Your task to perform on an android device: check battery use Image 0: 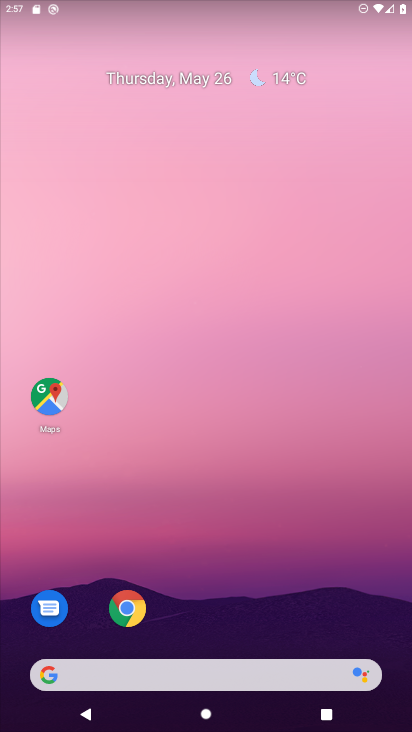
Step 0: drag from (281, 641) to (301, 55)
Your task to perform on an android device: check battery use Image 1: 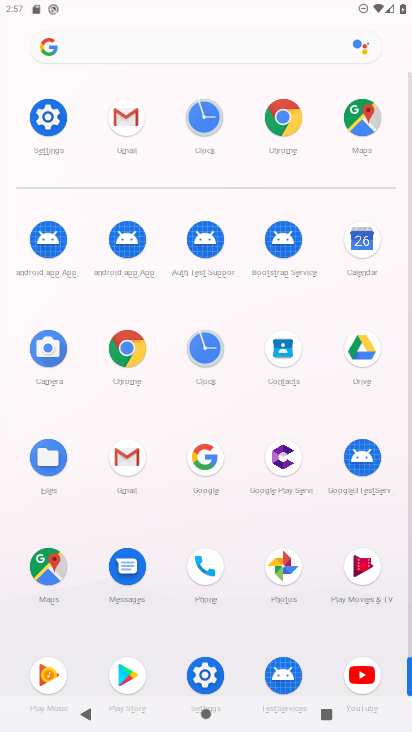
Step 1: click (42, 119)
Your task to perform on an android device: check battery use Image 2: 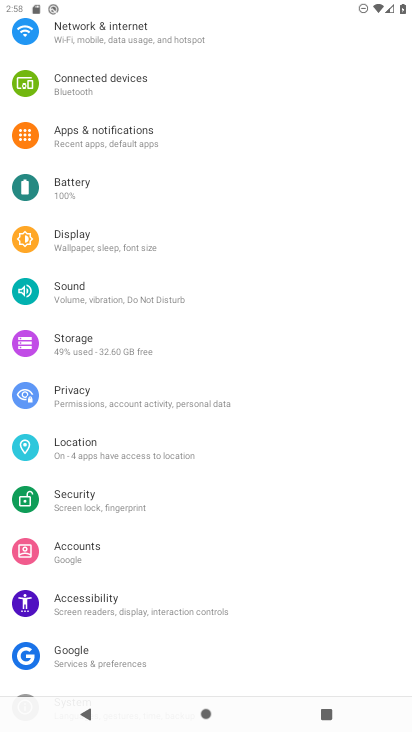
Step 2: click (113, 190)
Your task to perform on an android device: check battery use Image 3: 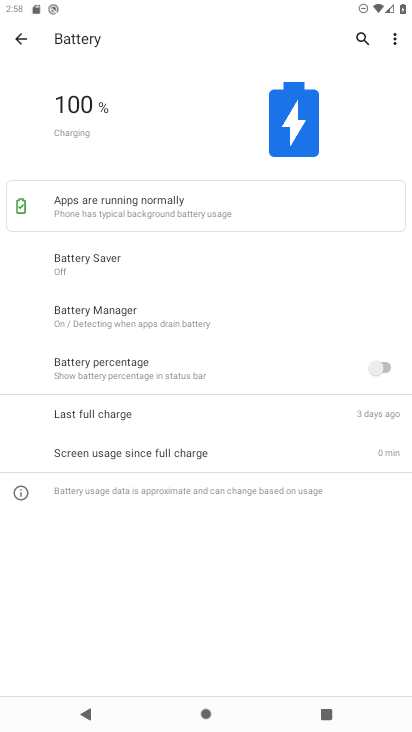
Step 3: task complete